Your task to perform on an android device: change the clock display to digital Image 0: 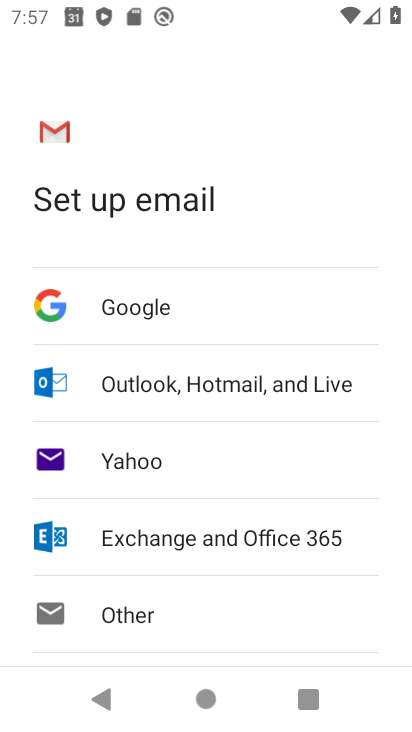
Step 0: press home button
Your task to perform on an android device: change the clock display to digital Image 1: 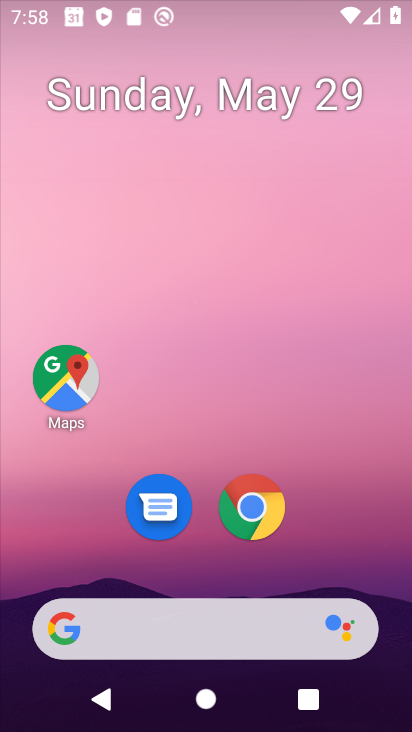
Step 1: drag from (318, 491) to (294, 100)
Your task to perform on an android device: change the clock display to digital Image 2: 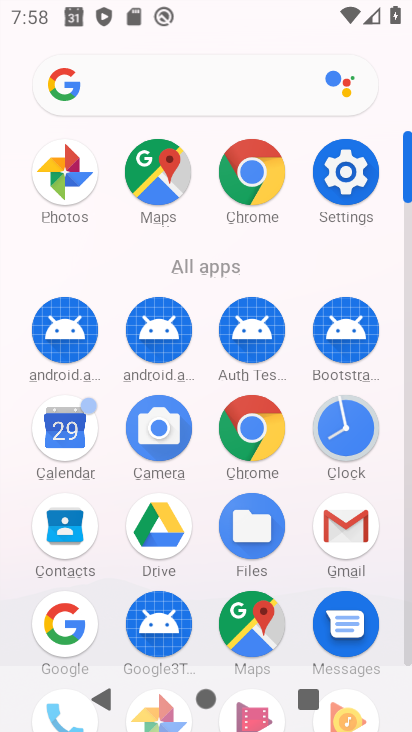
Step 2: click (351, 431)
Your task to perform on an android device: change the clock display to digital Image 3: 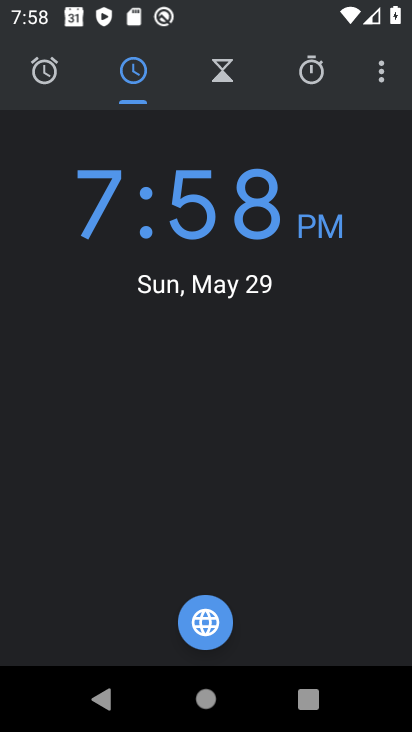
Step 3: drag from (376, 66) to (244, 143)
Your task to perform on an android device: change the clock display to digital Image 4: 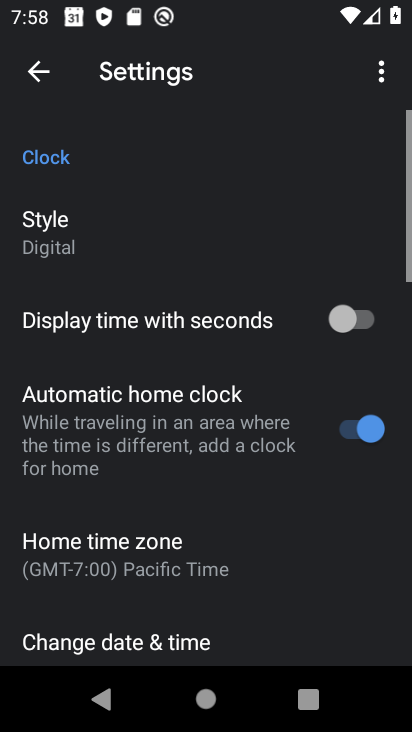
Step 4: click (40, 236)
Your task to perform on an android device: change the clock display to digital Image 5: 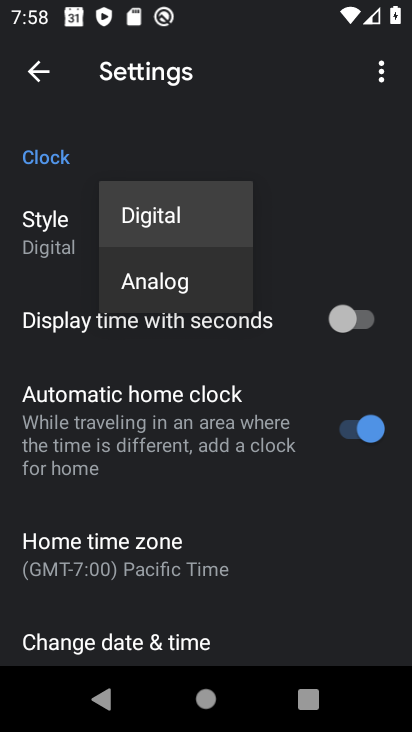
Step 5: task complete